Your task to perform on an android device: What is the recent news? Image 0: 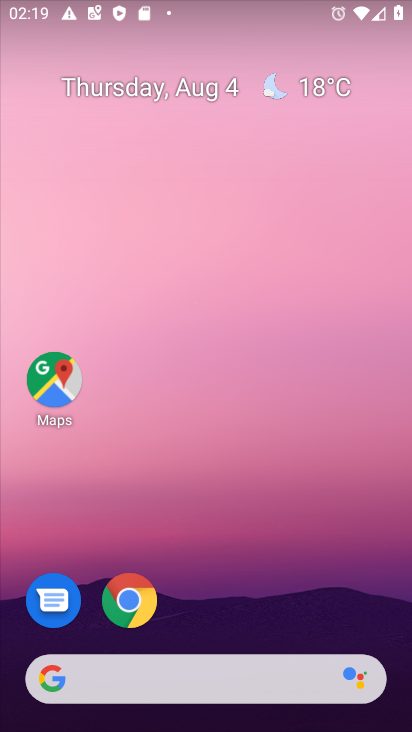
Step 0: press home button
Your task to perform on an android device: What is the recent news? Image 1: 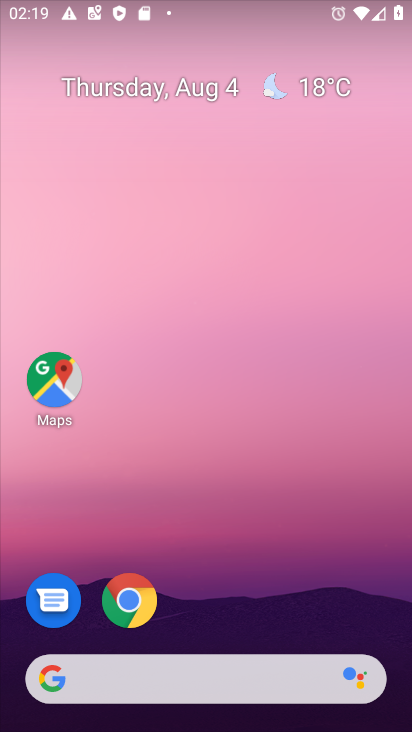
Step 1: click (152, 672)
Your task to perform on an android device: What is the recent news? Image 2: 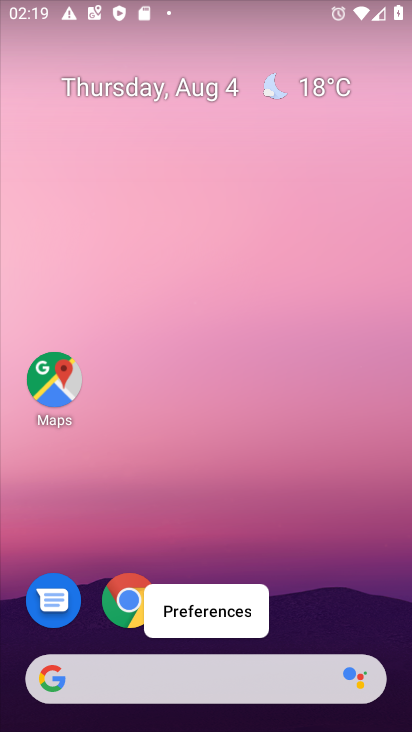
Step 2: click (112, 678)
Your task to perform on an android device: What is the recent news? Image 3: 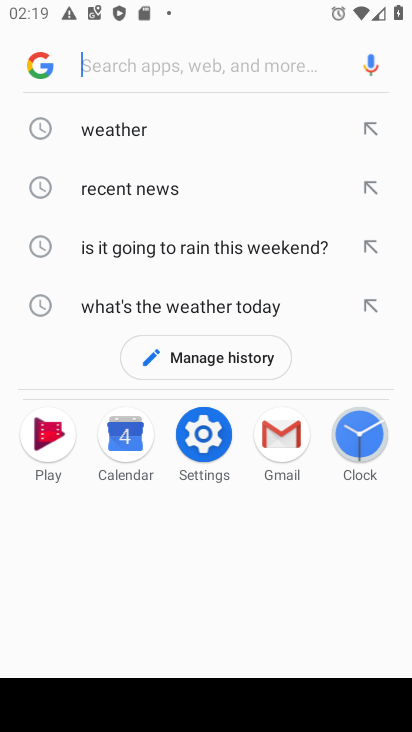
Step 3: click (139, 190)
Your task to perform on an android device: What is the recent news? Image 4: 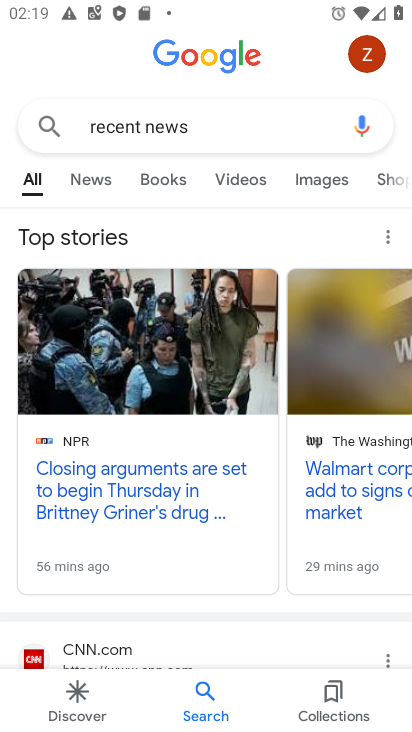
Step 4: click (78, 175)
Your task to perform on an android device: What is the recent news? Image 5: 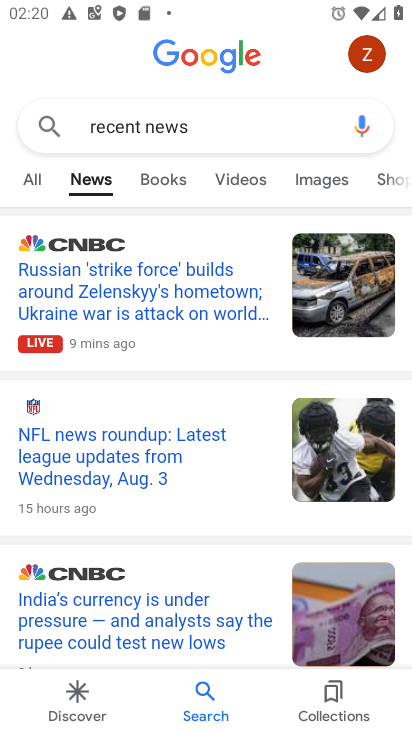
Step 5: task complete